Your task to perform on an android device: turn off improve location accuracy Image 0: 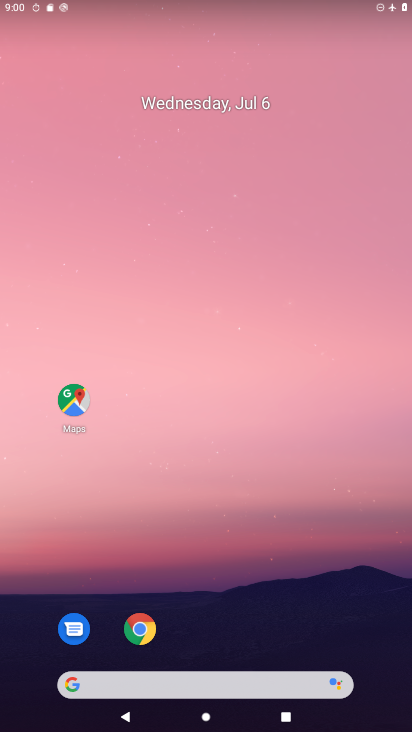
Step 0: drag from (233, 715) to (175, 4)
Your task to perform on an android device: turn off improve location accuracy Image 1: 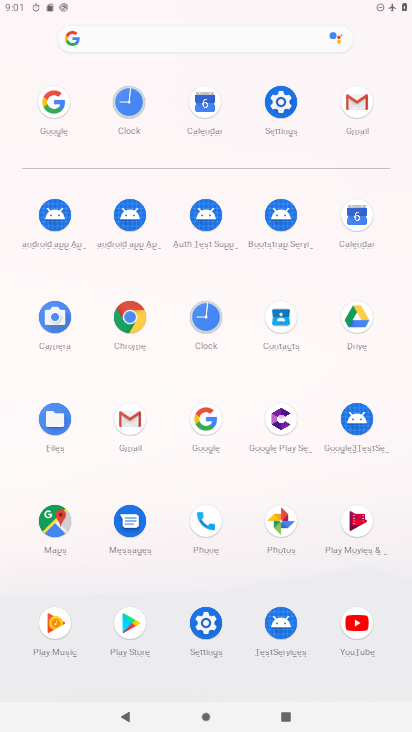
Step 1: click (284, 104)
Your task to perform on an android device: turn off improve location accuracy Image 2: 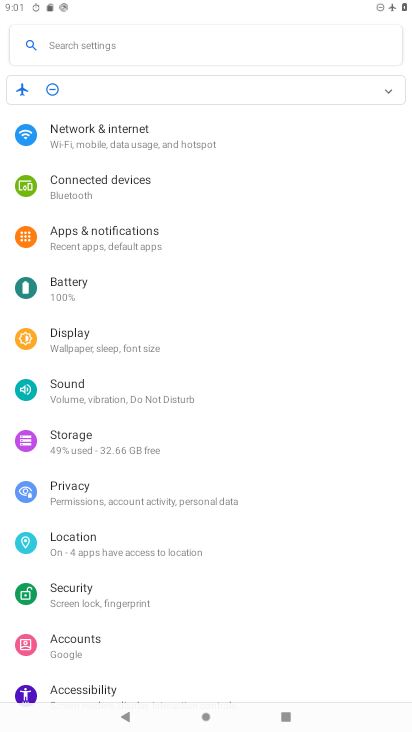
Step 2: click (98, 540)
Your task to perform on an android device: turn off improve location accuracy Image 3: 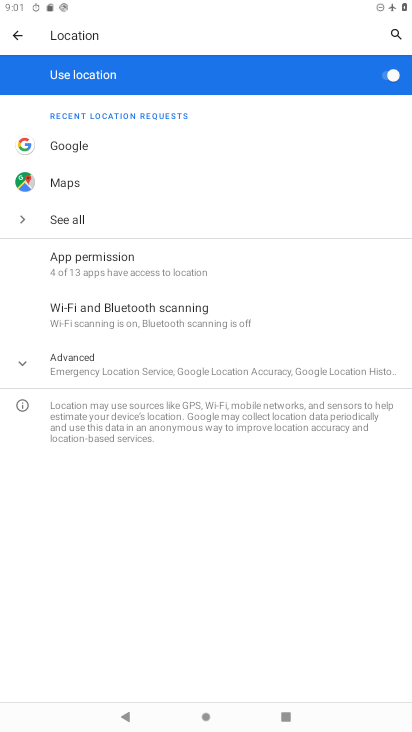
Step 3: click (85, 361)
Your task to perform on an android device: turn off improve location accuracy Image 4: 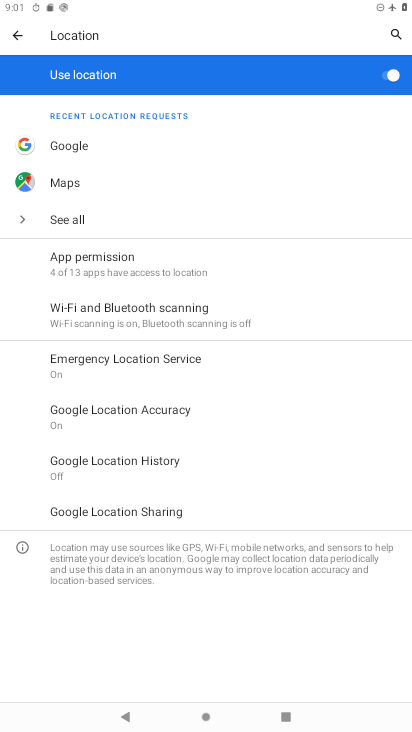
Step 4: click (107, 408)
Your task to perform on an android device: turn off improve location accuracy Image 5: 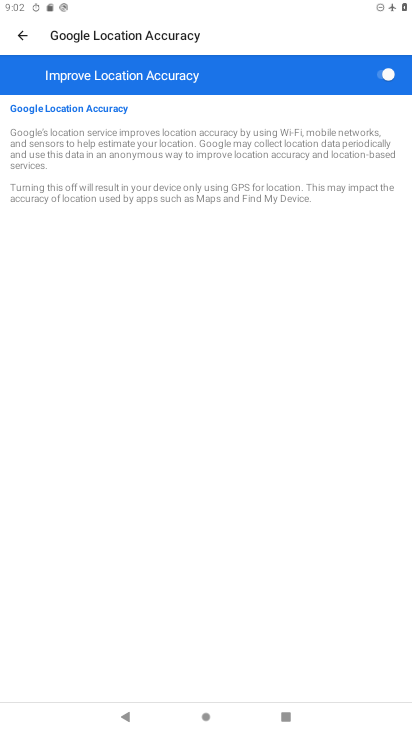
Step 5: click (380, 75)
Your task to perform on an android device: turn off improve location accuracy Image 6: 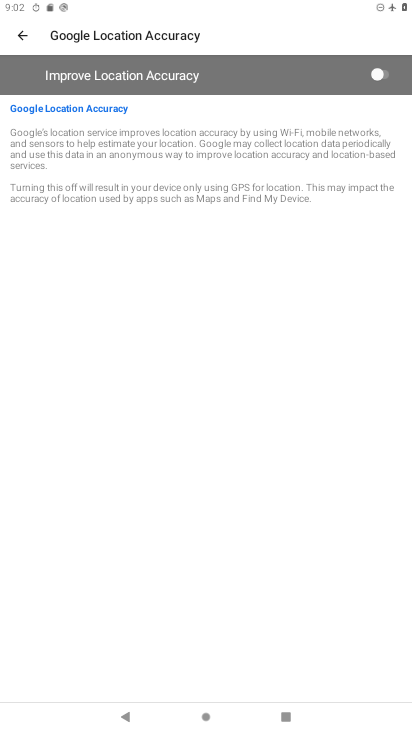
Step 6: task complete